Your task to perform on an android device: set an alarm Image 0: 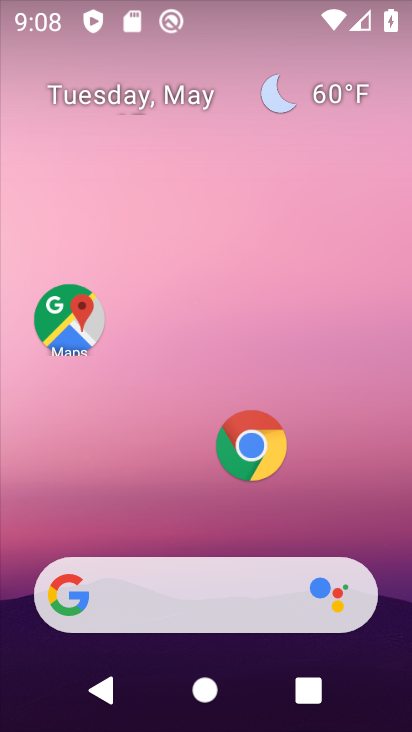
Step 0: drag from (241, 543) to (194, 219)
Your task to perform on an android device: set an alarm Image 1: 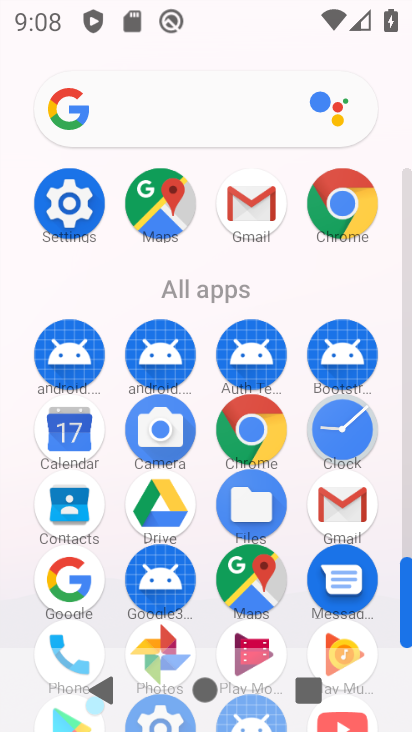
Step 1: click (343, 440)
Your task to perform on an android device: set an alarm Image 2: 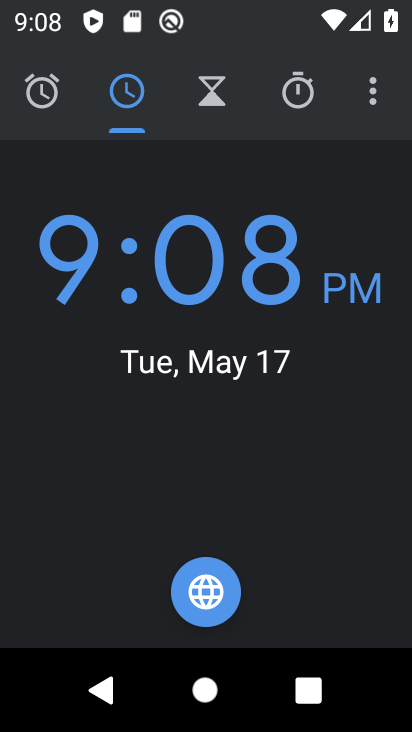
Step 2: click (37, 107)
Your task to perform on an android device: set an alarm Image 3: 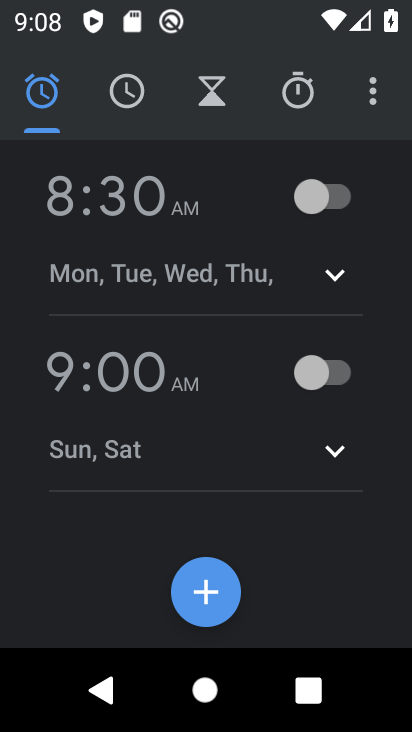
Step 3: click (338, 206)
Your task to perform on an android device: set an alarm Image 4: 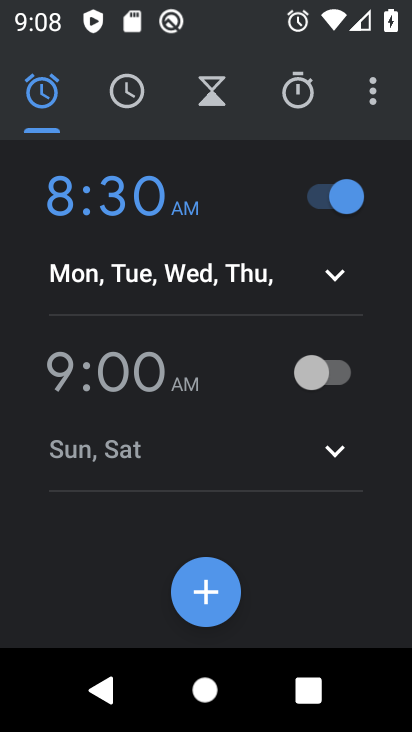
Step 4: task complete